Your task to perform on an android device: Open settings on Google Maps Image 0: 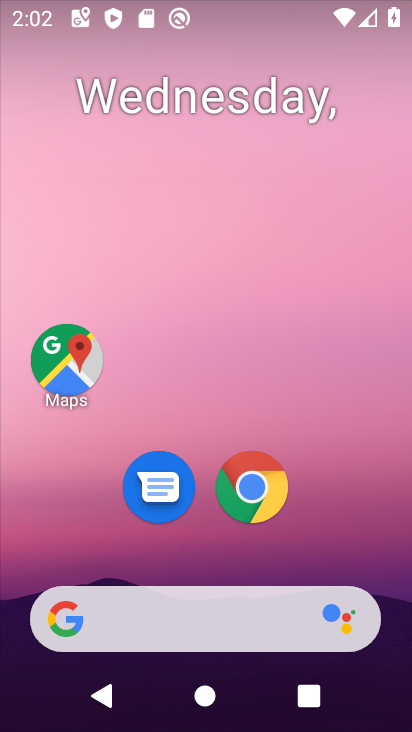
Step 0: drag from (333, 549) to (238, 116)
Your task to perform on an android device: Open settings on Google Maps Image 1: 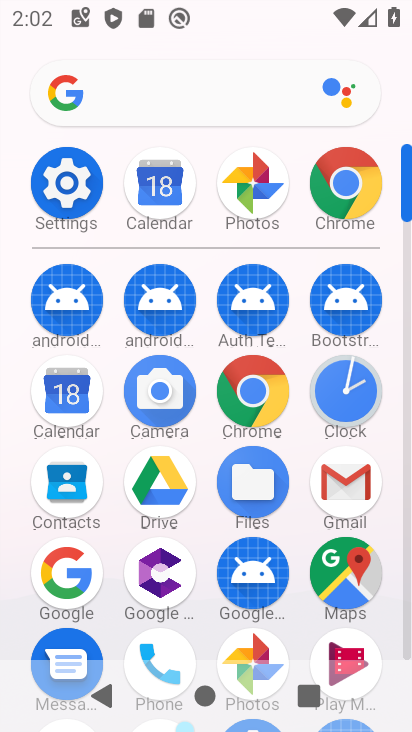
Step 1: click (326, 562)
Your task to perform on an android device: Open settings on Google Maps Image 2: 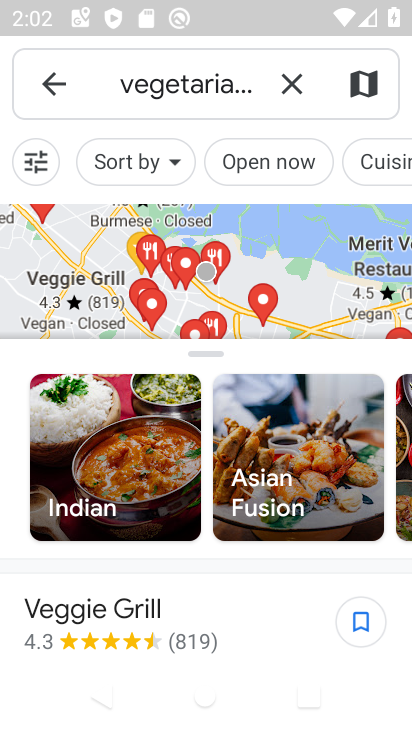
Step 2: click (290, 83)
Your task to perform on an android device: Open settings on Google Maps Image 3: 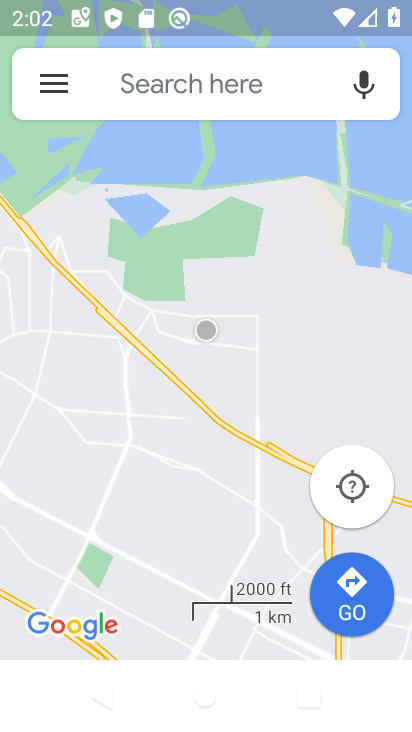
Step 3: click (61, 78)
Your task to perform on an android device: Open settings on Google Maps Image 4: 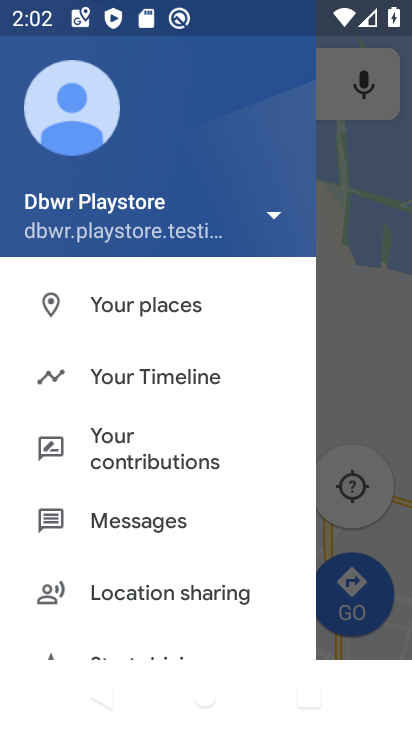
Step 4: drag from (160, 417) to (55, 86)
Your task to perform on an android device: Open settings on Google Maps Image 5: 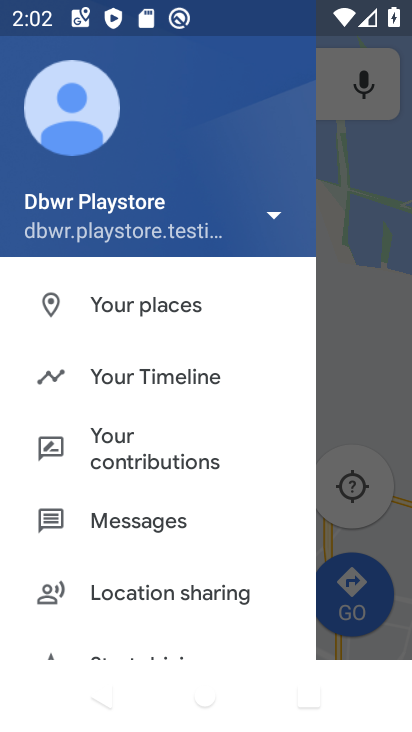
Step 5: drag from (153, 539) to (160, 180)
Your task to perform on an android device: Open settings on Google Maps Image 6: 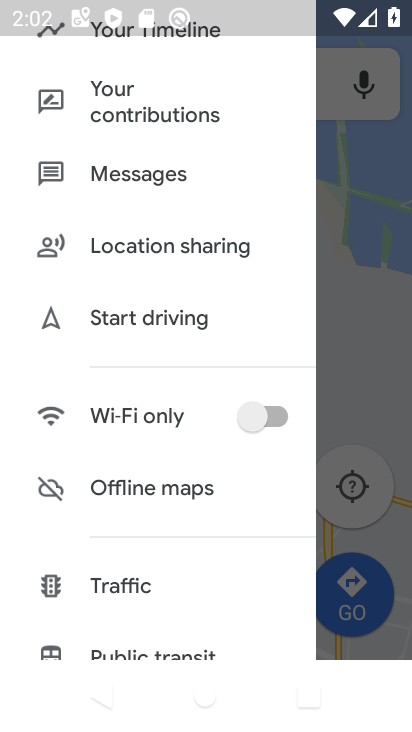
Step 6: drag from (174, 510) to (138, 225)
Your task to perform on an android device: Open settings on Google Maps Image 7: 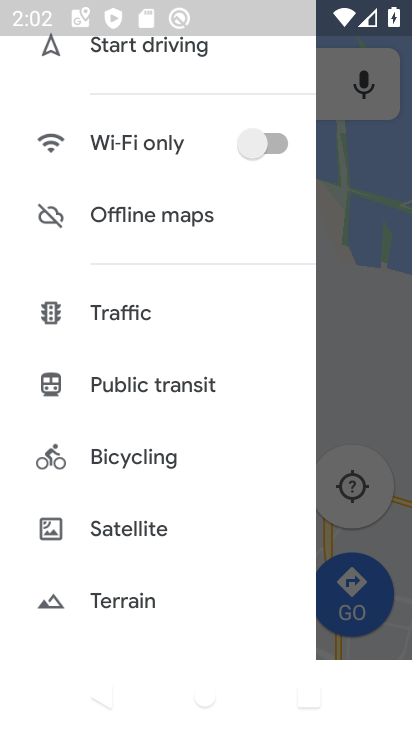
Step 7: drag from (179, 561) to (115, 227)
Your task to perform on an android device: Open settings on Google Maps Image 8: 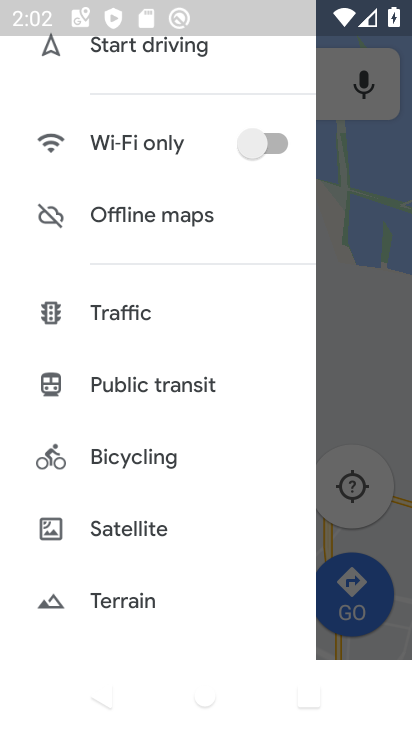
Step 8: drag from (151, 525) to (125, 238)
Your task to perform on an android device: Open settings on Google Maps Image 9: 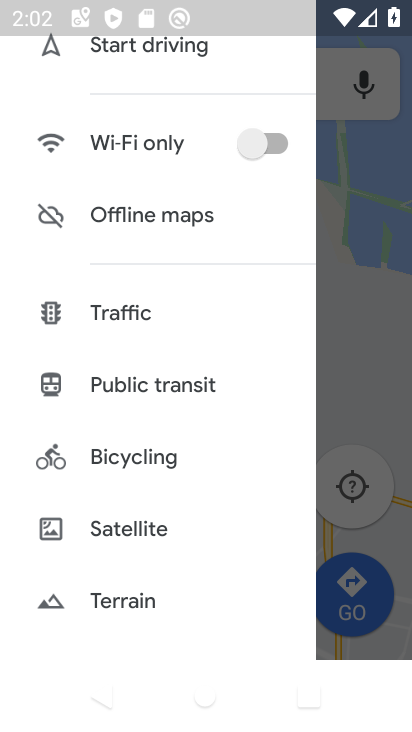
Step 9: drag from (166, 467) to (166, 304)
Your task to perform on an android device: Open settings on Google Maps Image 10: 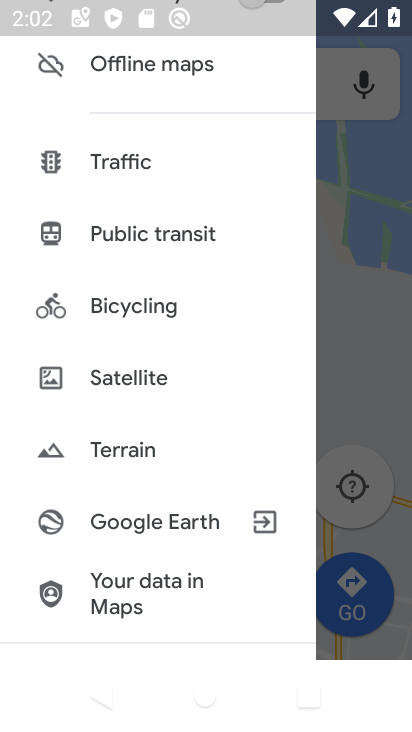
Step 10: drag from (154, 478) to (143, 217)
Your task to perform on an android device: Open settings on Google Maps Image 11: 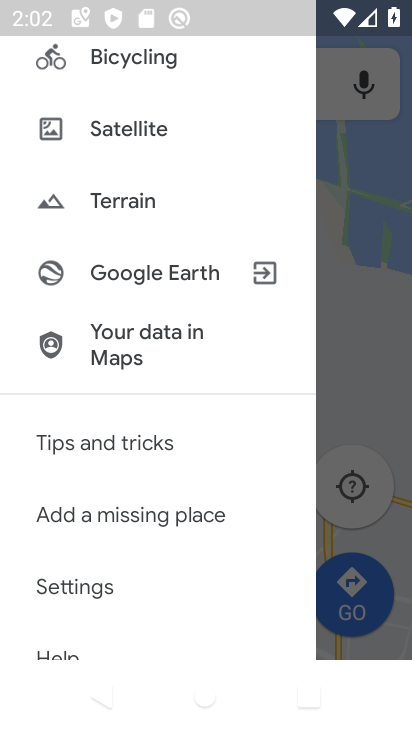
Step 11: click (89, 584)
Your task to perform on an android device: Open settings on Google Maps Image 12: 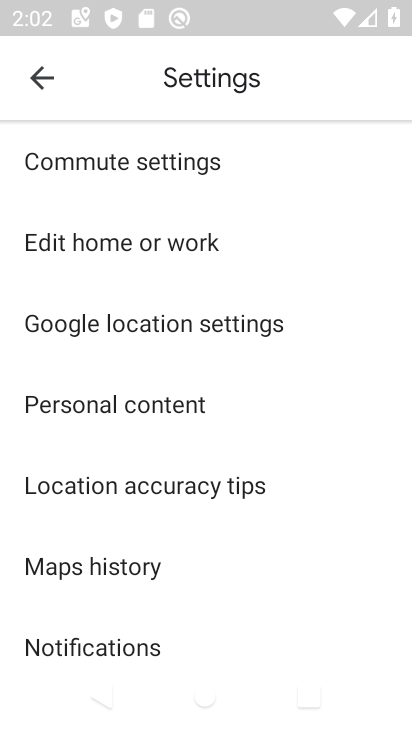
Step 12: task complete